Your task to perform on an android device: What is the news today? Image 0: 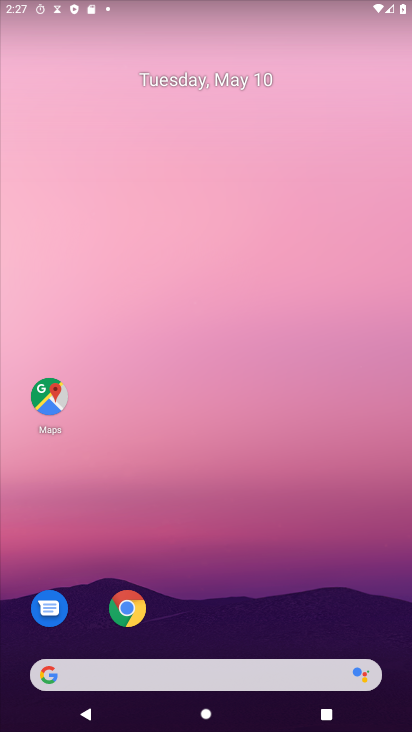
Step 0: drag from (6, 288) to (407, 352)
Your task to perform on an android device: What is the news today? Image 1: 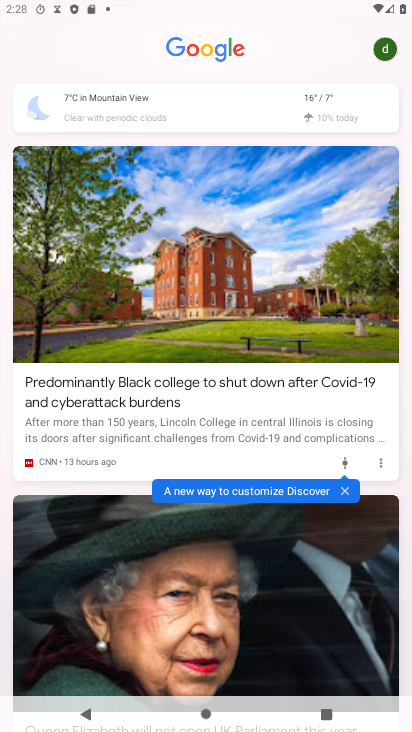
Step 1: task complete